Your task to perform on an android device: Search for "razer kraken" on walmart, select the first entry, add it to the cart, then select checkout. Image 0: 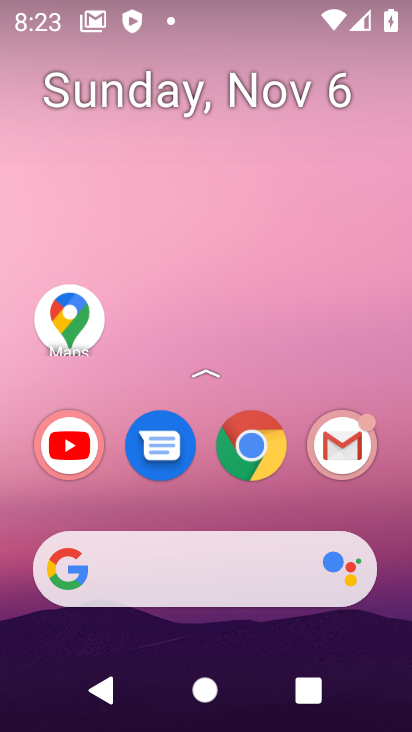
Step 0: click (247, 447)
Your task to perform on an android device: Search for "razer kraken" on walmart, select the first entry, add it to the cart, then select checkout. Image 1: 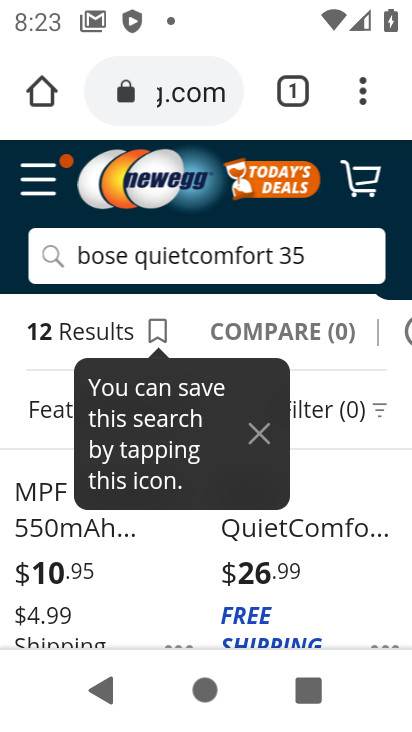
Step 1: click (165, 91)
Your task to perform on an android device: Search for "razer kraken" on walmart, select the first entry, add it to the cart, then select checkout. Image 2: 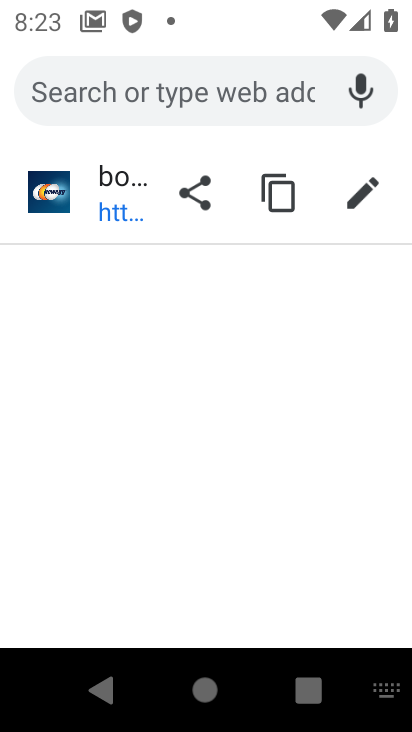
Step 2: type " walmart"
Your task to perform on an android device: Search for "razer kraken" on walmart, select the first entry, add it to the cart, then select checkout. Image 3: 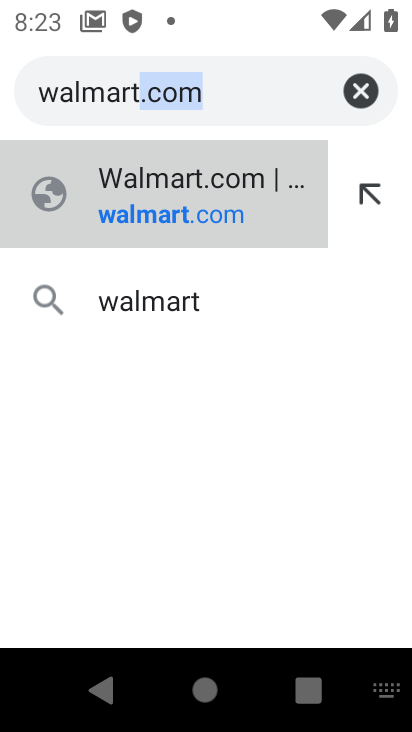
Step 3: press enter
Your task to perform on an android device: Search for "razer kraken" on walmart, select the first entry, add it to the cart, then select checkout. Image 4: 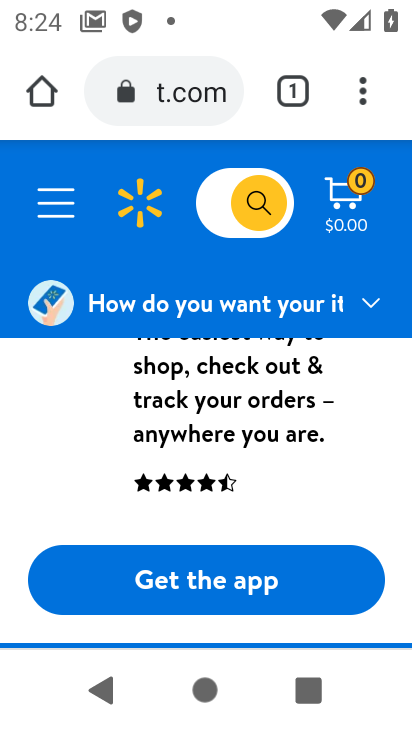
Step 4: drag from (244, 299) to (392, 78)
Your task to perform on an android device: Search for "razer kraken" on walmart, select the first entry, add it to the cart, then select checkout. Image 5: 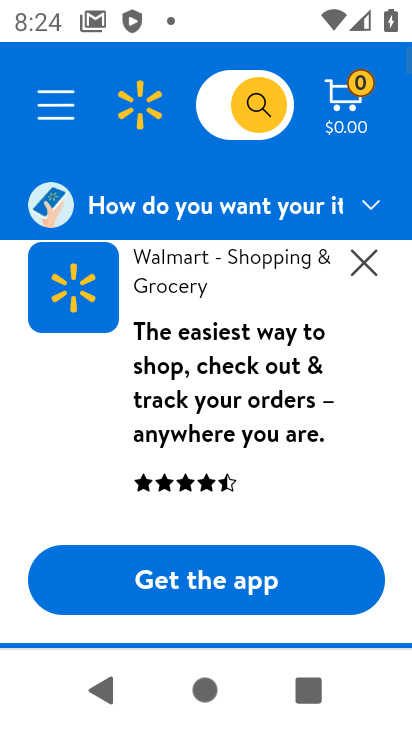
Step 5: click (360, 260)
Your task to perform on an android device: Search for "razer kraken" on walmart, select the first entry, add it to the cart, then select checkout. Image 6: 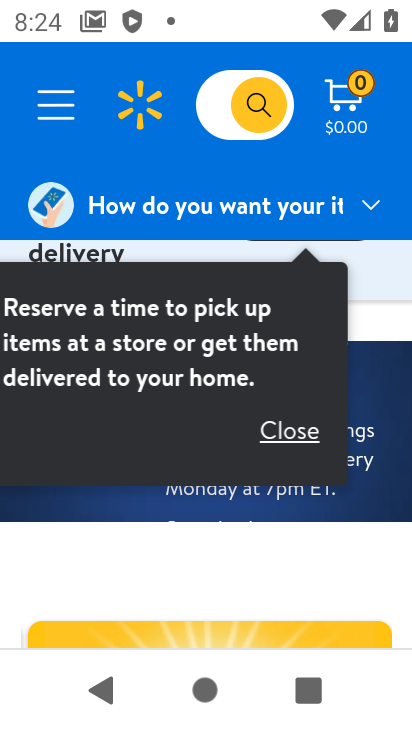
Step 6: click (254, 100)
Your task to perform on an android device: Search for "razer kraken" on walmart, select the first entry, add it to the cart, then select checkout. Image 7: 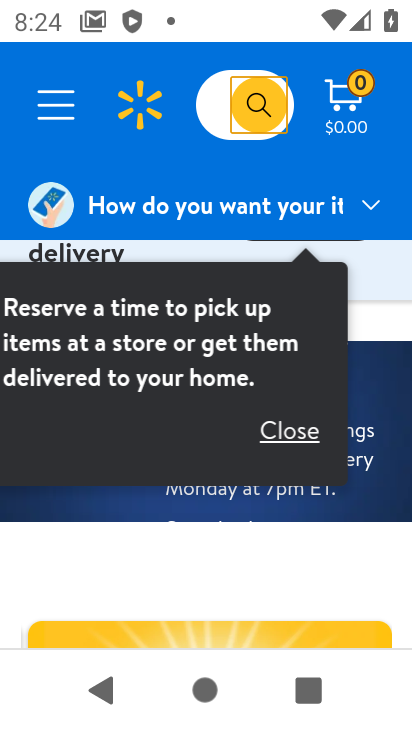
Step 7: click (220, 108)
Your task to perform on an android device: Search for "razer kraken" on walmart, select the first entry, add it to the cart, then select checkout. Image 8: 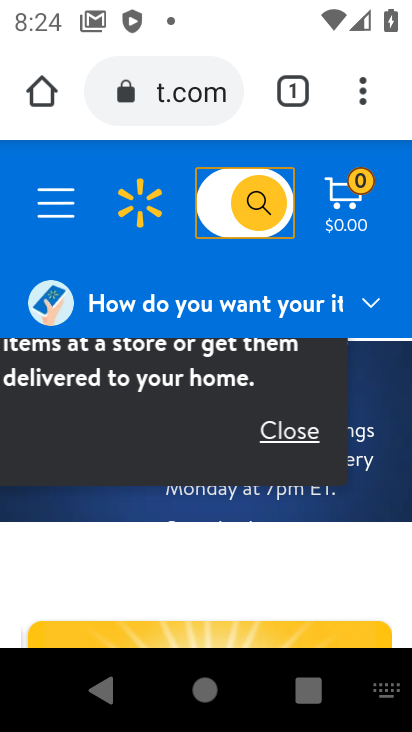
Step 8: click (214, 207)
Your task to perform on an android device: Search for "razer kraken" on walmart, select the first entry, add it to the cart, then select checkout. Image 9: 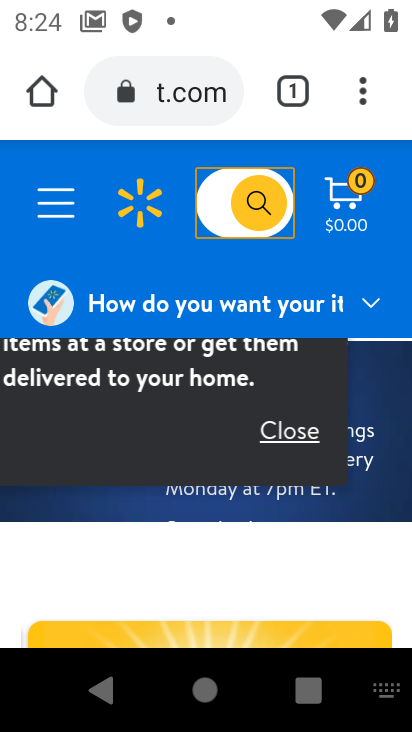
Step 9: type "razer kraken"
Your task to perform on an android device: Search for "razer kraken" on walmart, select the first entry, add it to the cart, then select checkout. Image 10: 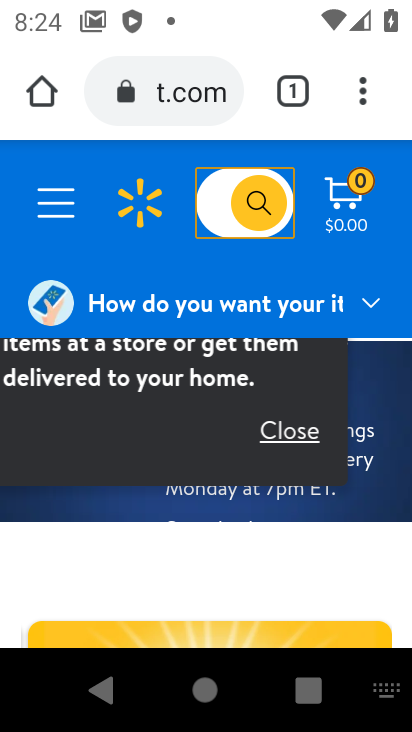
Step 10: press enter
Your task to perform on an android device: Search for "razer kraken" on walmart, select the first entry, add it to the cart, then select checkout. Image 11: 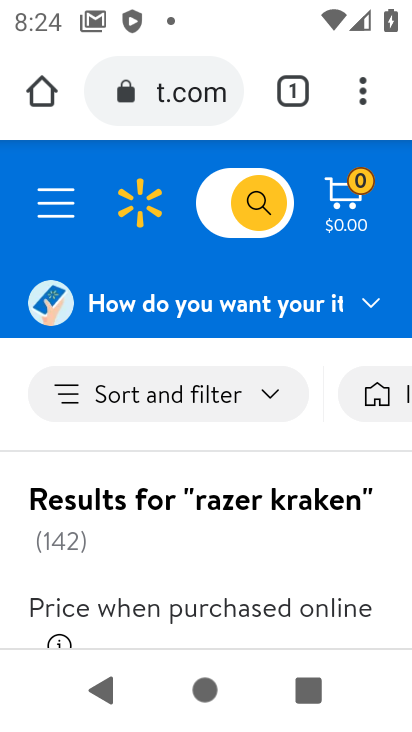
Step 11: drag from (231, 569) to (397, 203)
Your task to perform on an android device: Search for "razer kraken" on walmart, select the first entry, add it to the cart, then select checkout. Image 12: 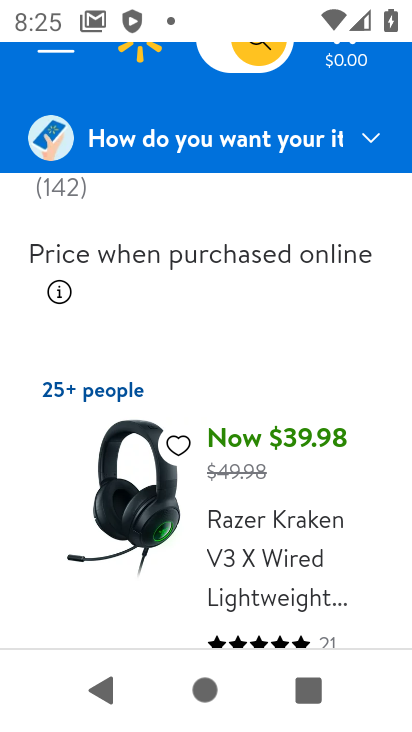
Step 12: drag from (181, 606) to (377, 262)
Your task to perform on an android device: Search for "razer kraken" on walmart, select the first entry, add it to the cart, then select checkout. Image 13: 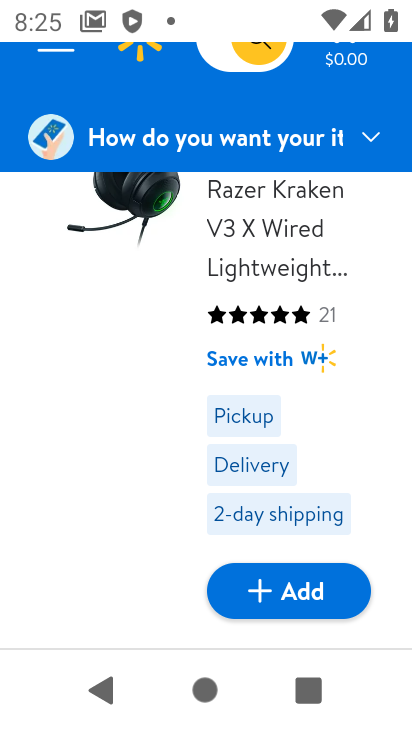
Step 13: click (303, 597)
Your task to perform on an android device: Search for "razer kraken" on walmart, select the first entry, add it to the cart, then select checkout. Image 14: 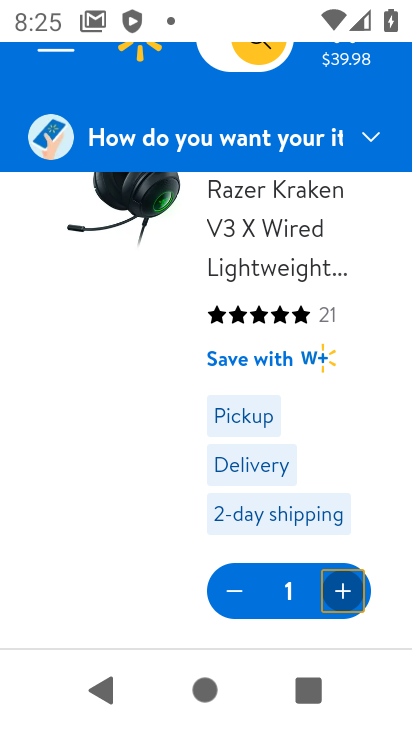
Step 14: drag from (355, 292) to (347, 529)
Your task to perform on an android device: Search for "razer kraken" on walmart, select the first entry, add it to the cart, then select checkout. Image 15: 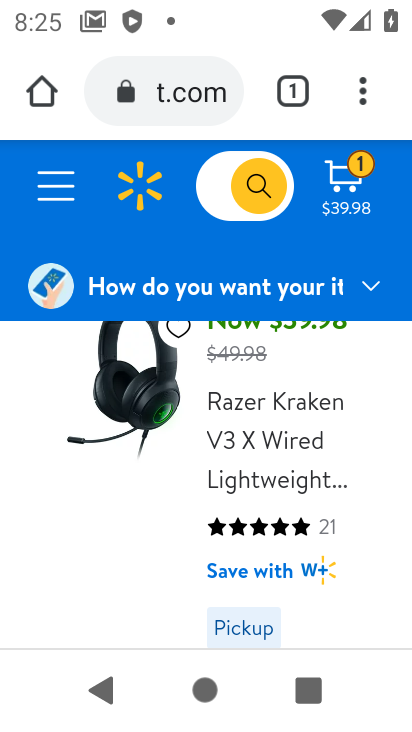
Step 15: click (352, 176)
Your task to perform on an android device: Search for "razer kraken" on walmart, select the first entry, add it to the cart, then select checkout. Image 16: 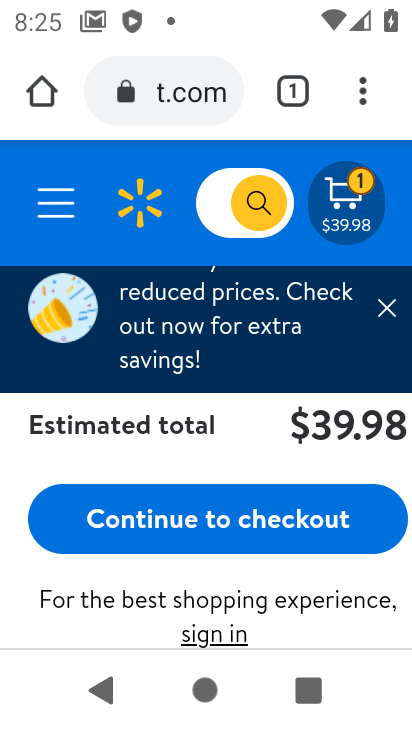
Step 16: drag from (226, 418) to (356, 125)
Your task to perform on an android device: Search for "razer kraken" on walmart, select the first entry, add it to the cart, then select checkout. Image 17: 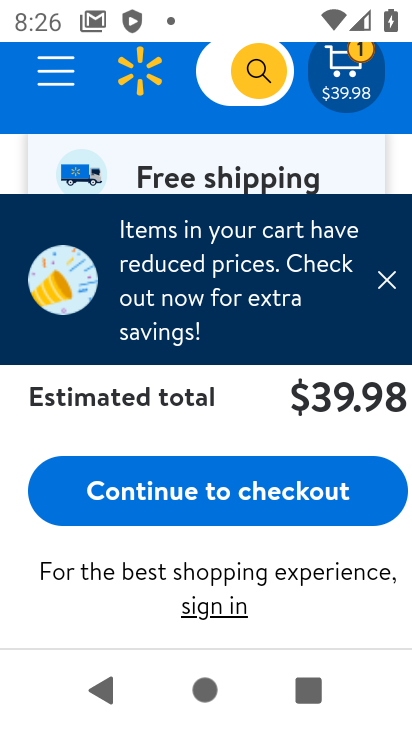
Step 17: drag from (137, 621) to (375, 218)
Your task to perform on an android device: Search for "razer kraken" on walmart, select the first entry, add it to the cart, then select checkout. Image 18: 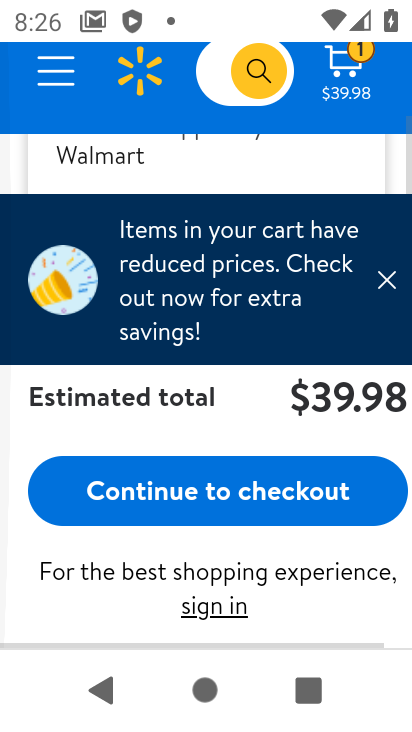
Step 18: click (386, 282)
Your task to perform on an android device: Search for "razer kraken" on walmart, select the first entry, add it to the cart, then select checkout. Image 19: 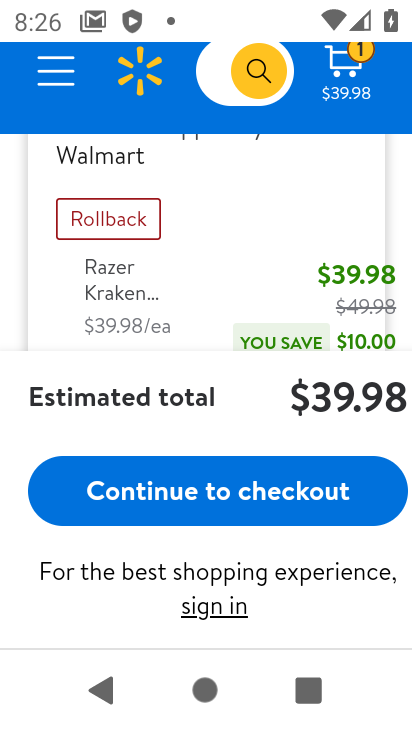
Step 19: drag from (232, 218) to (193, 427)
Your task to perform on an android device: Search for "razer kraken" on walmart, select the first entry, add it to the cart, then select checkout. Image 20: 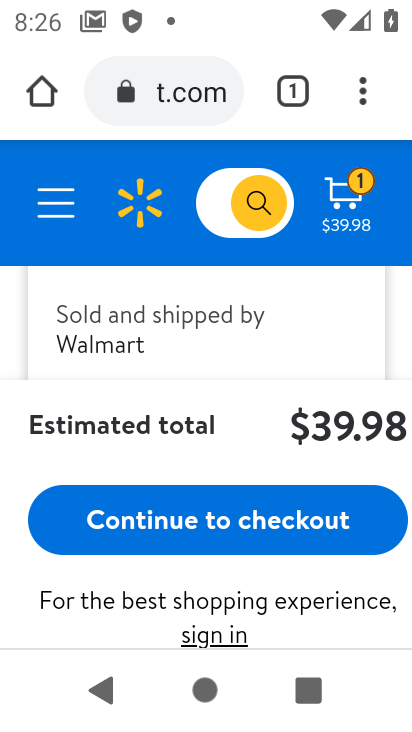
Step 20: click (200, 526)
Your task to perform on an android device: Search for "razer kraken" on walmart, select the first entry, add it to the cart, then select checkout. Image 21: 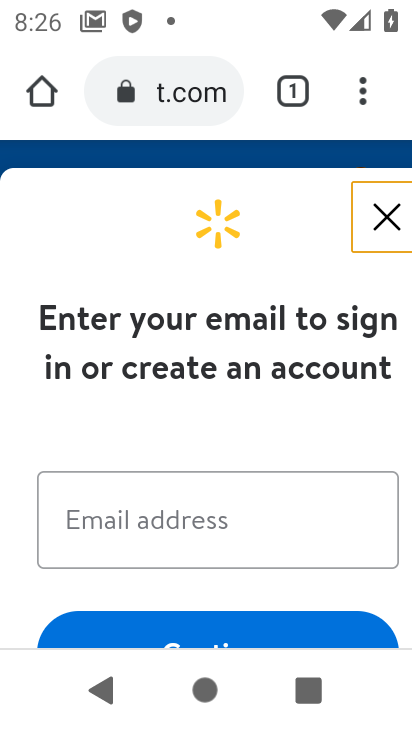
Step 21: task complete